Your task to perform on an android device: Go to settings Image 0: 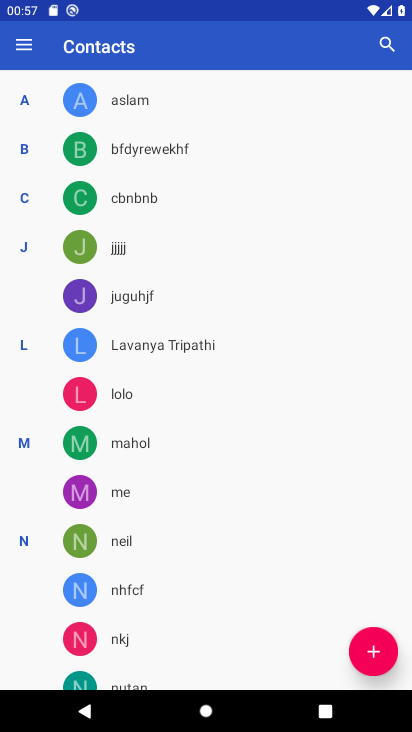
Step 0: press home button
Your task to perform on an android device: Go to settings Image 1: 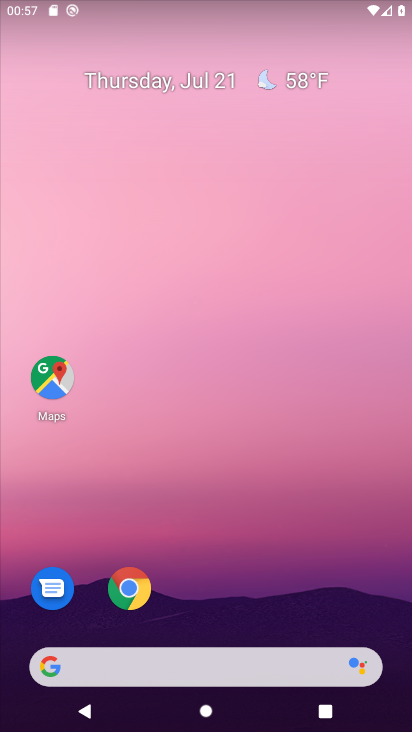
Step 1: drag from (240, 528) to (231, 154)
Your task to perform on an android device: Go to settings Image 2: 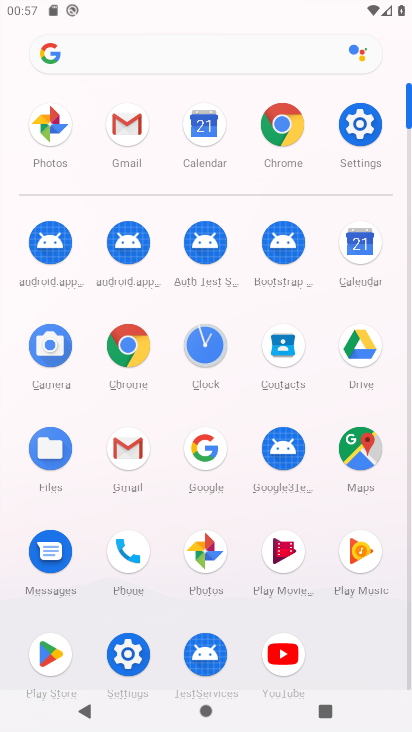
Step 2: click (129, 664)
Your task to perform on an android device: Go to settings Image 3: 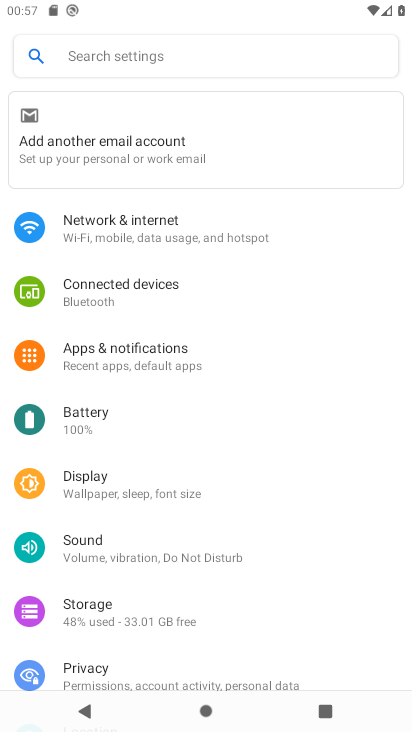
Step 3: click (145, 239)
Your task to perform on an android device: Go to settings Image 4: 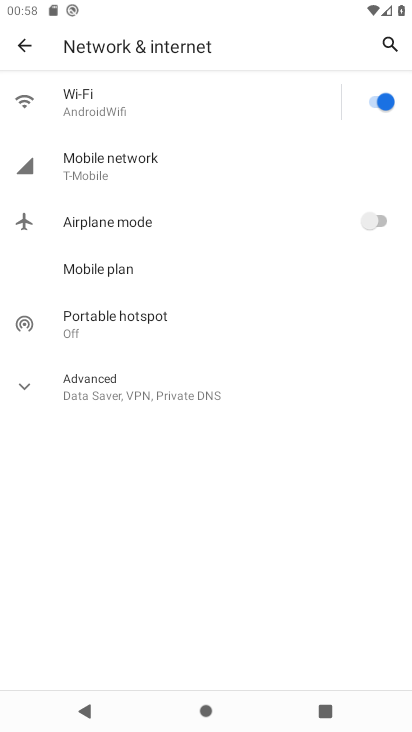
Step 4: task complete